Your task to perform on an android device: What's on my calendar today? Image 0: 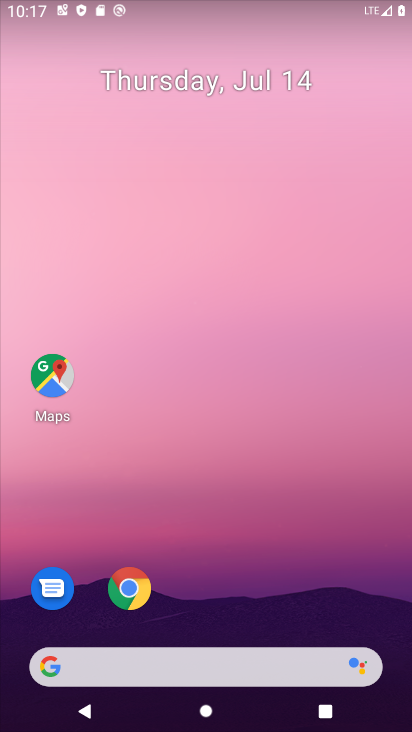
Step 0: drag from (381, 620) to (337, 50)
Your task to perform on an android device: What's on my calendar today? Image 1: 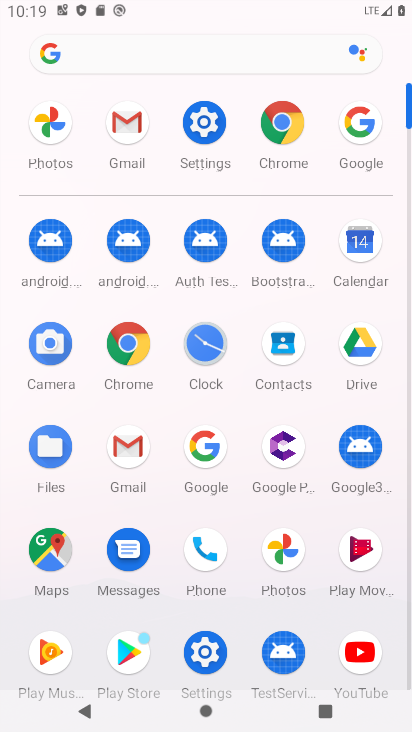
Step 1: click (359, 225)
Your task to perform on an android device: What's on my calendar today? Image 2: 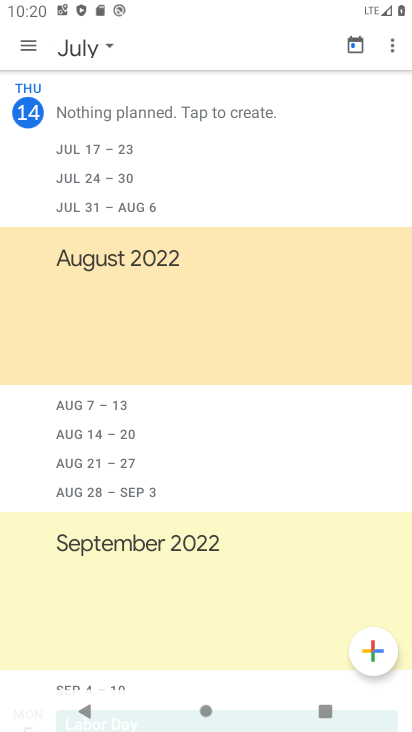
Step 2: task complete